Your task to perform on an android device: change keyboard looks Image 0: 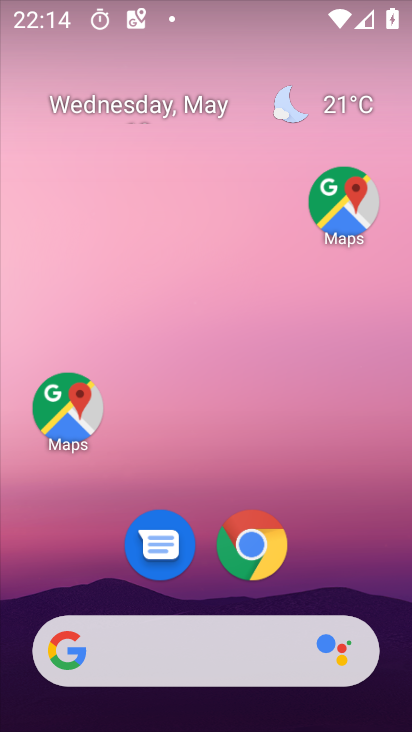
Step 0: drag from (312, 590) to (308, 1)
Your task to perform on an android device: change keyboard looks Image 1: 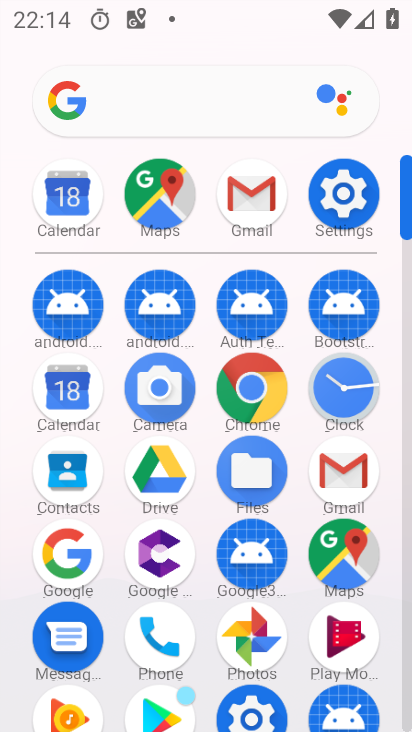
Step 1: click (347, 191)
Your task to perform on an android device: change keyboard looks Image 2: 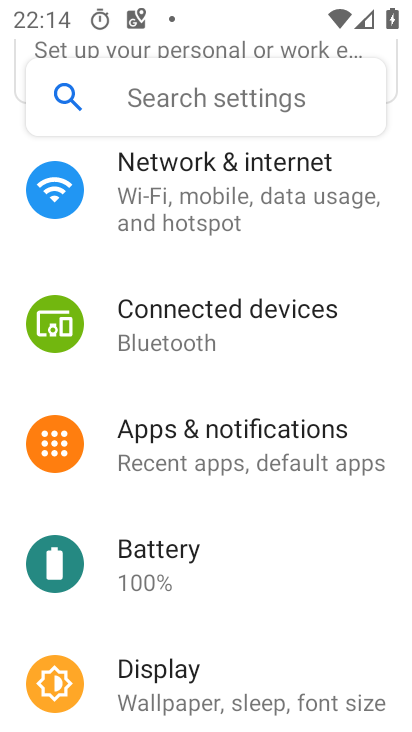
Step 2: drag from (211, 606) to (201, 378)
Your task to perform on an android device: change keyboard looks Image 3: 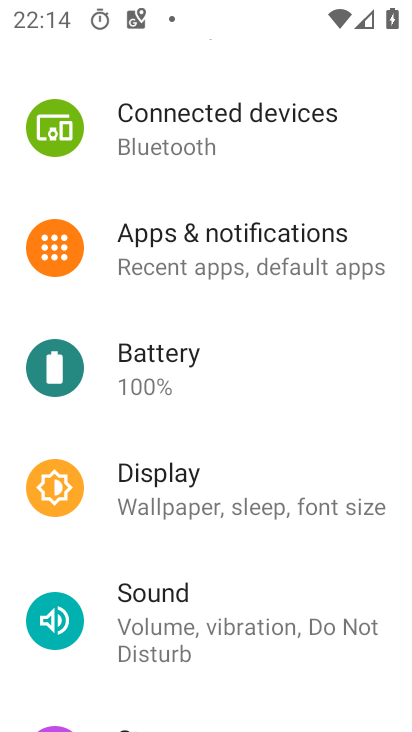
Step 3: drag from (214, 633) to (252, 305)
Your task to perform on an android device: change keyboard looks Image 4: 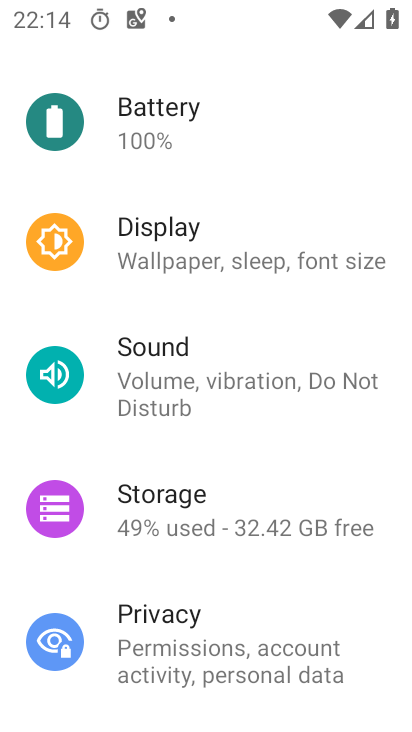
Step 4: drag from (240, 625) to (229, 374)
Your task to perform on an android device: change keyboard looks Image 5: 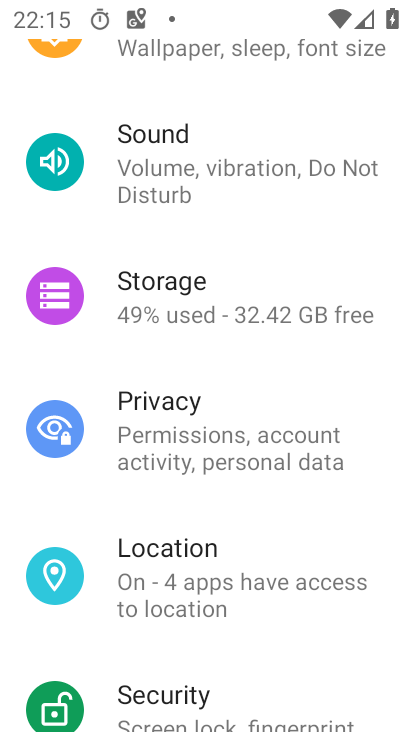
Step 5: drag from (215, 633) to (219, 435)
Your task to perform on an android device: change keyboard looks Image 6: 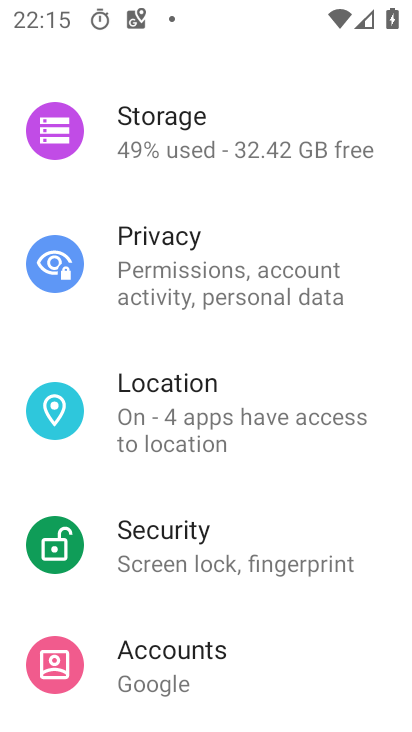
Step 6: drag from (188, 640) to (217, 412)
Your task to perform on an android device: change keyboard looks Image 7: 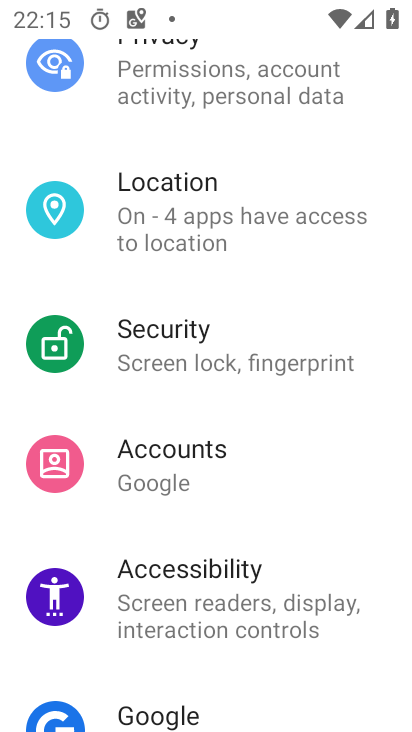
Step 7: drag from (193, 647) to (241, 373)
Your task to perform on an android device: change keyboard looks Image 8: 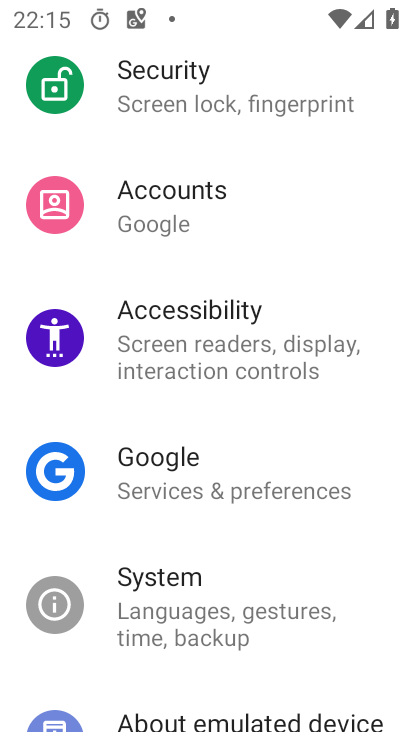
Step 8: click (188, 629)
Your task to perform on an android device: change keyboard looks Image 9: 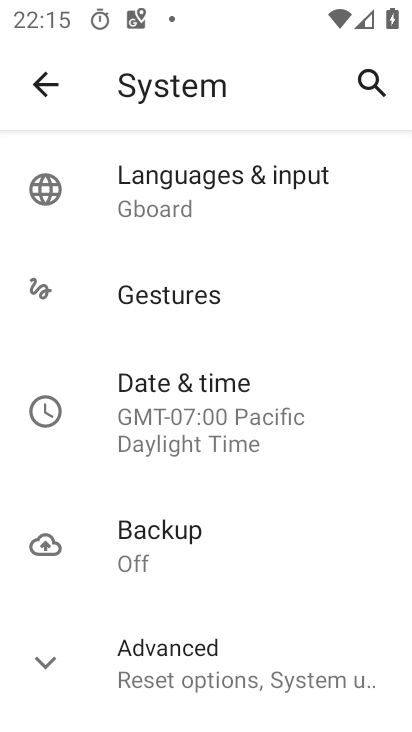
Step 9: click (208, 204)
Your task to perform on an android device: change keyboard looks Image 10: 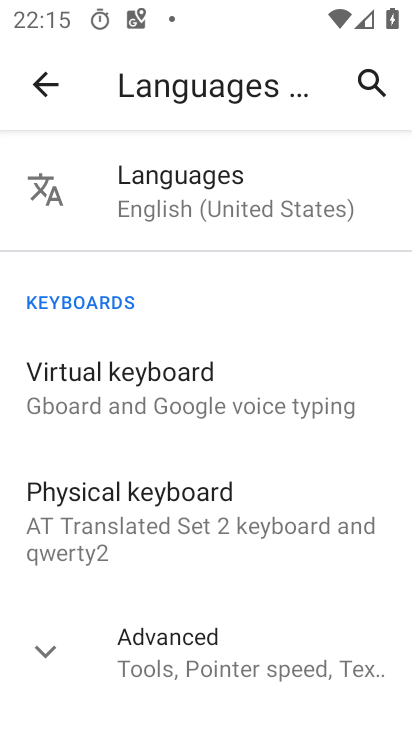
Step 10: click (201, 385)
Your task to perform on an android device: change keyboard looks Image 11: 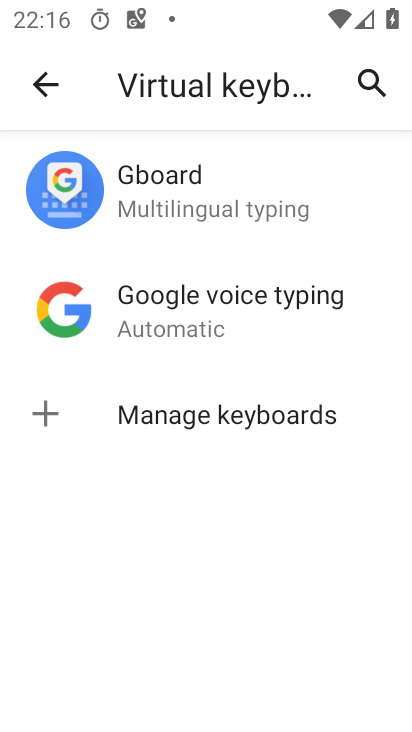
Step 11: click (245, 192)
Your task to perform on an android device: change keyboard looks Image 12: 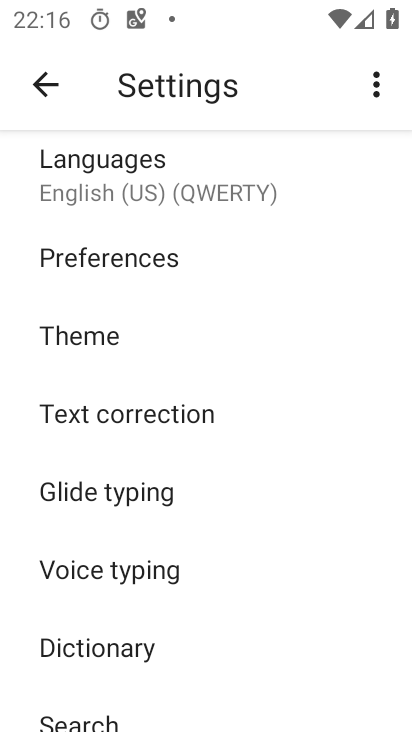
Step 12: click (102, 332)
Your task to perform on an android device: change keyboard looks Image 13: 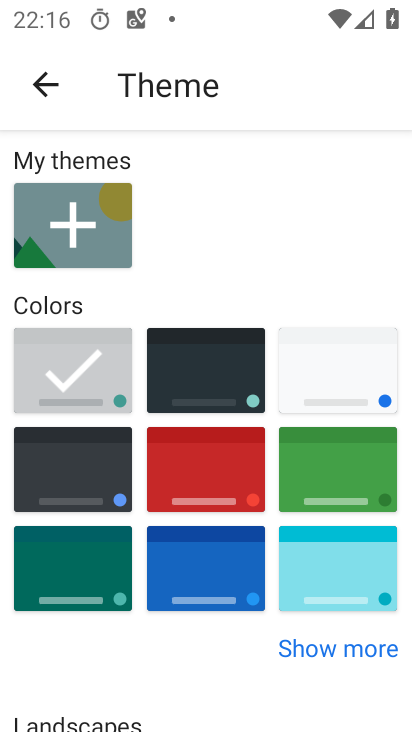
Step 13: click (65, 564)
Your task to perform on an android device: change keyboard looks Image 14: 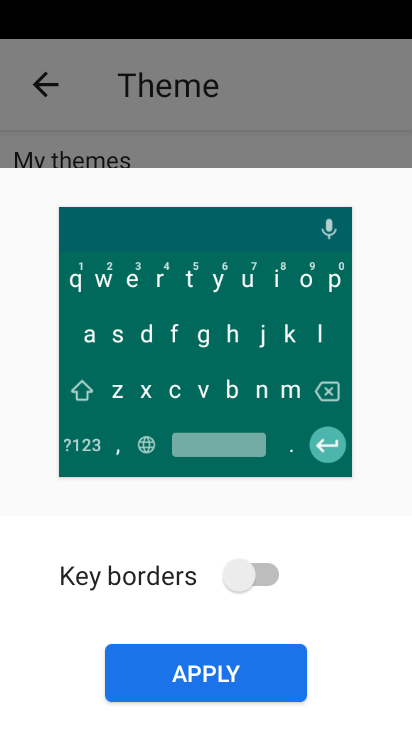
Step 14: click (233, 675)
Your task to perform on an android device: change keyboard looks Image 15: 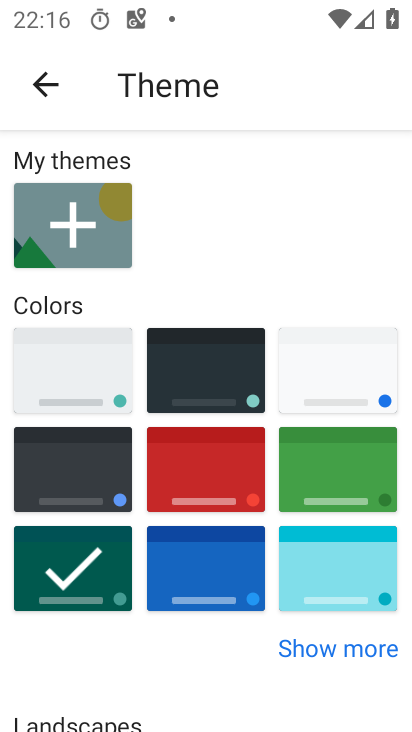
Step 15: task complete